Your task to perform on an android device: open the mobile data screen to see how much data has been used Image 0: 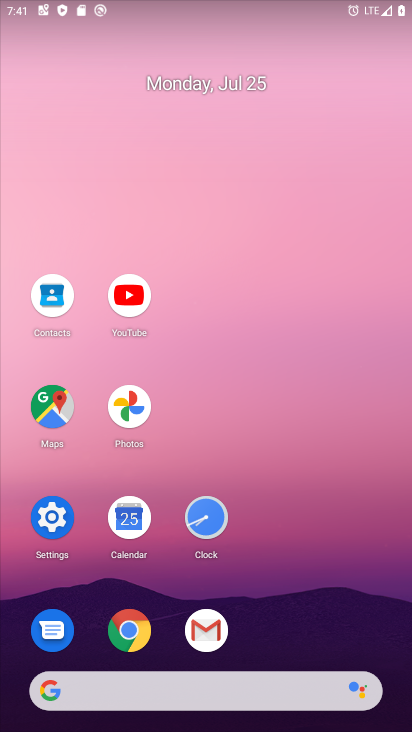
Step 0: click (40, 513)
Your task to perform on an android device: open the mobile data screen to see how much data has been used Image 1: 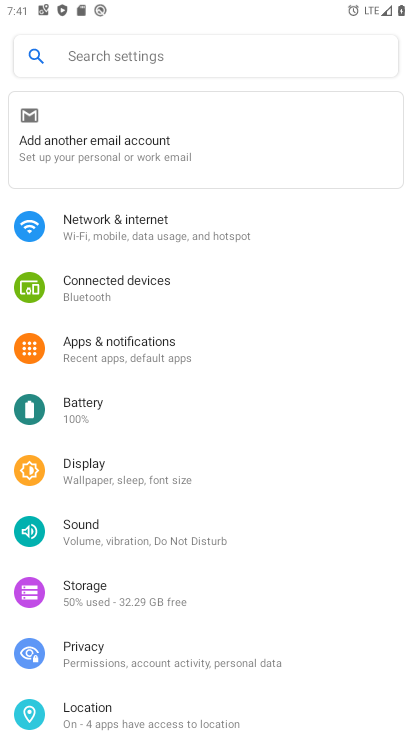
Step 1: click (115, 226)
Your task to perform on an android device: open the mobile data screen to see how much data has been used Image 2: 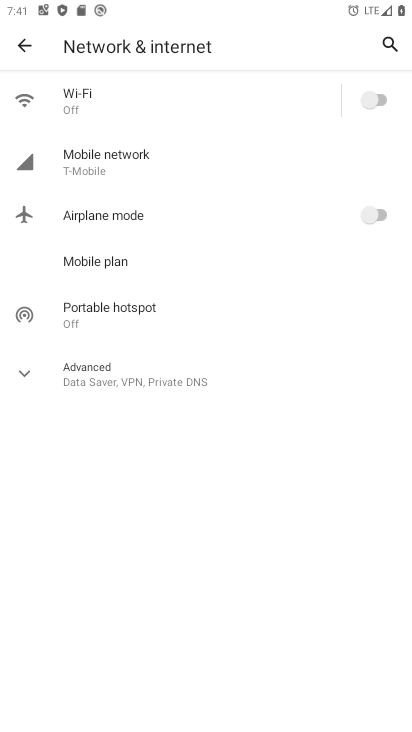
Step 2: click (100, 158)
Your task to perform on an android device: open the mobile data screen to see how much data has been used Image 3: 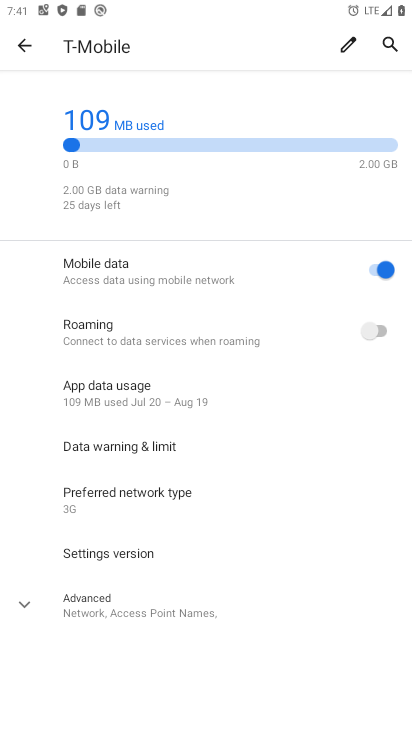
Step 3: task complete